Your task to perform on an android device: Show the shopping cart on costco. Search for alienware area 51 on costco, select the first entry, add it to the cart, then select checkout. Image 0: 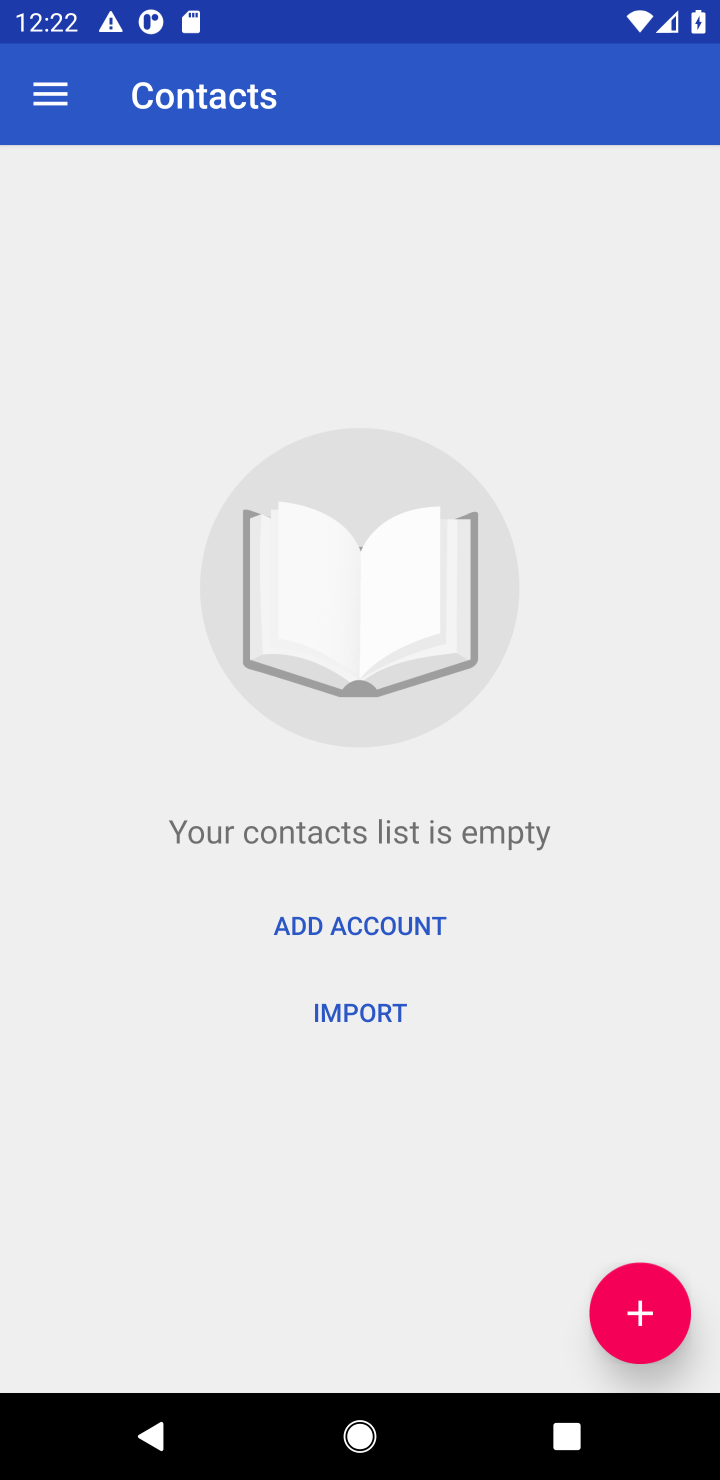
Step 0: press home button
Your task to perform on an android device: Show the shopping cart on costco. Search for alienware area 51 on costco, select the first entry, add it to the cart, then select checkout. Image 1: 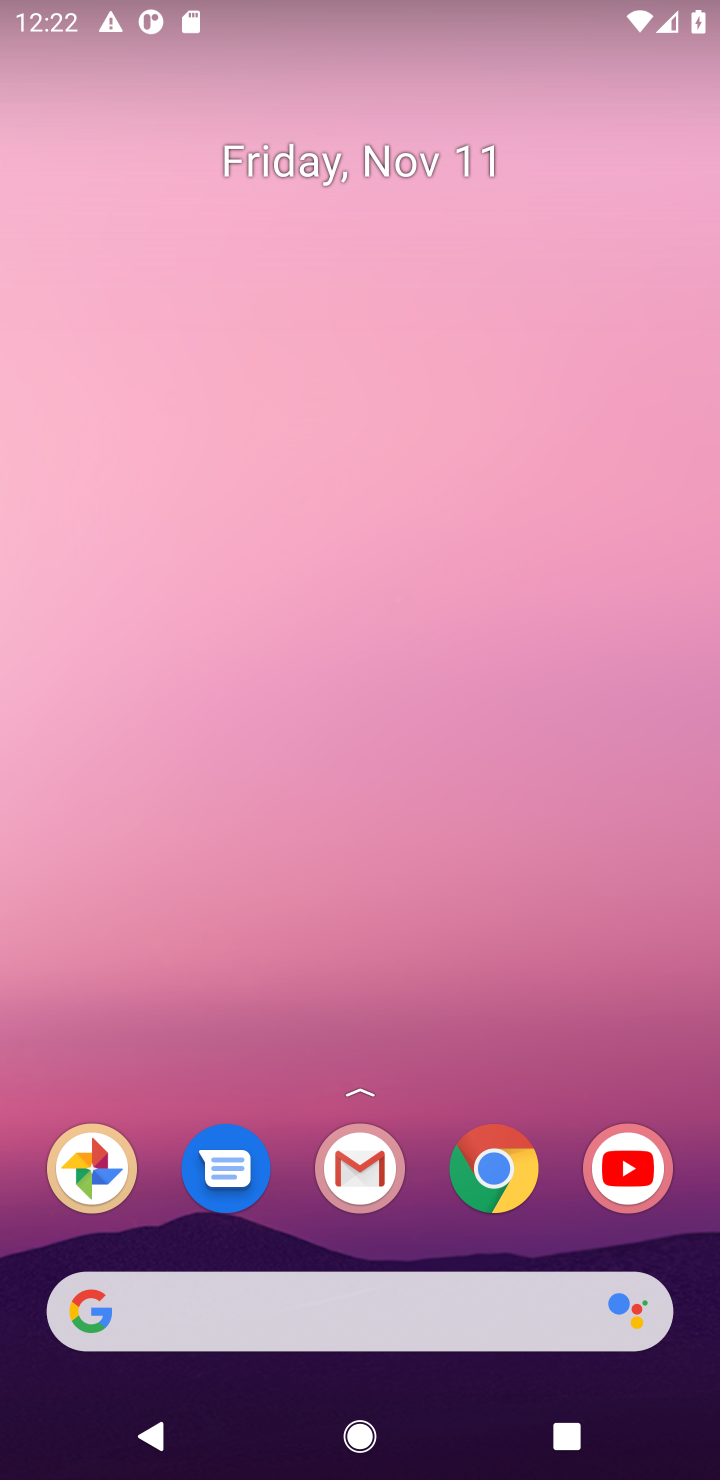
Step 1: click (510, 1158)
Your task to perform on an android device: Show the shopping cart on costco. Search for alienware area 51 on costco, select the first entry, add it to the cart, then select checkout. Image 2: 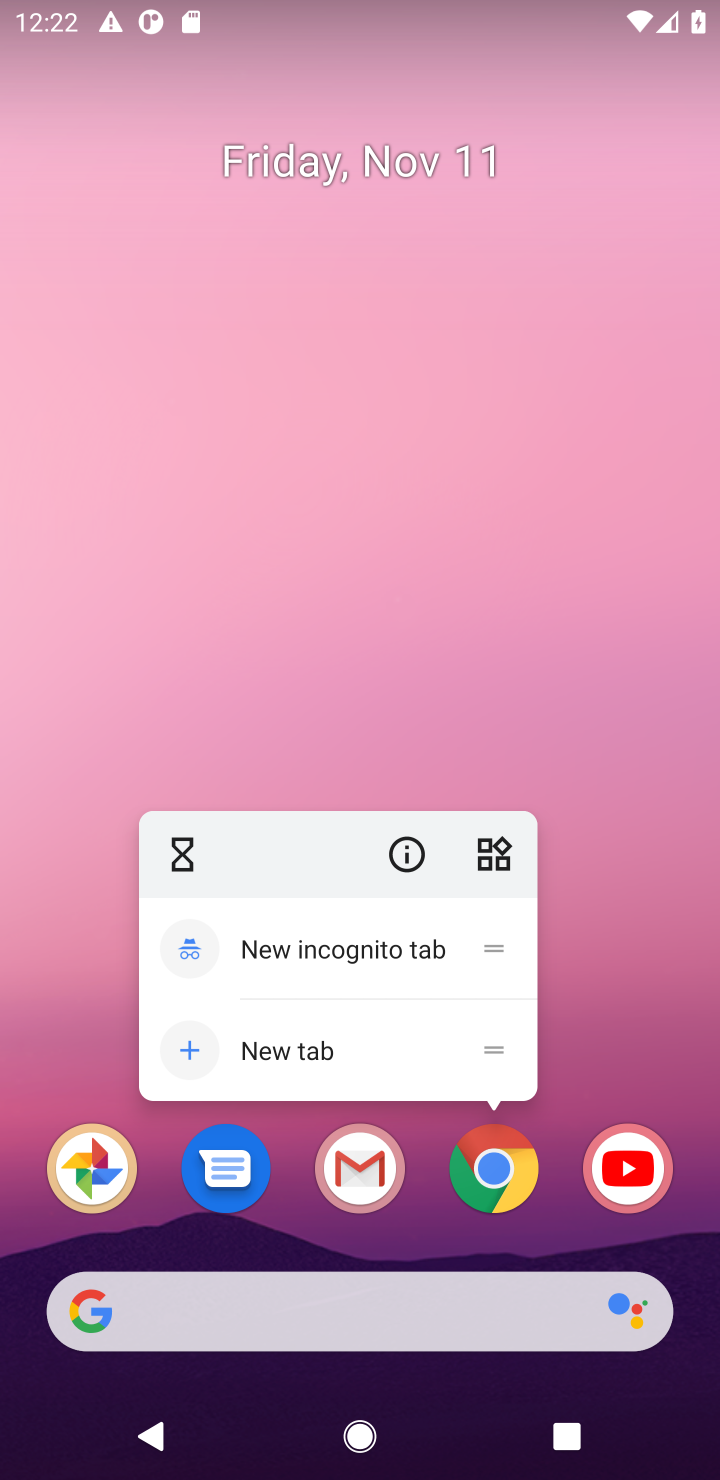
Step 2: click (493, 1183)
Your task to perform on an android device: Show the shopping cart on costco. Search for alienware area 51 on costco, select the first entry, add it to the cart, then select checkout. Image 3: 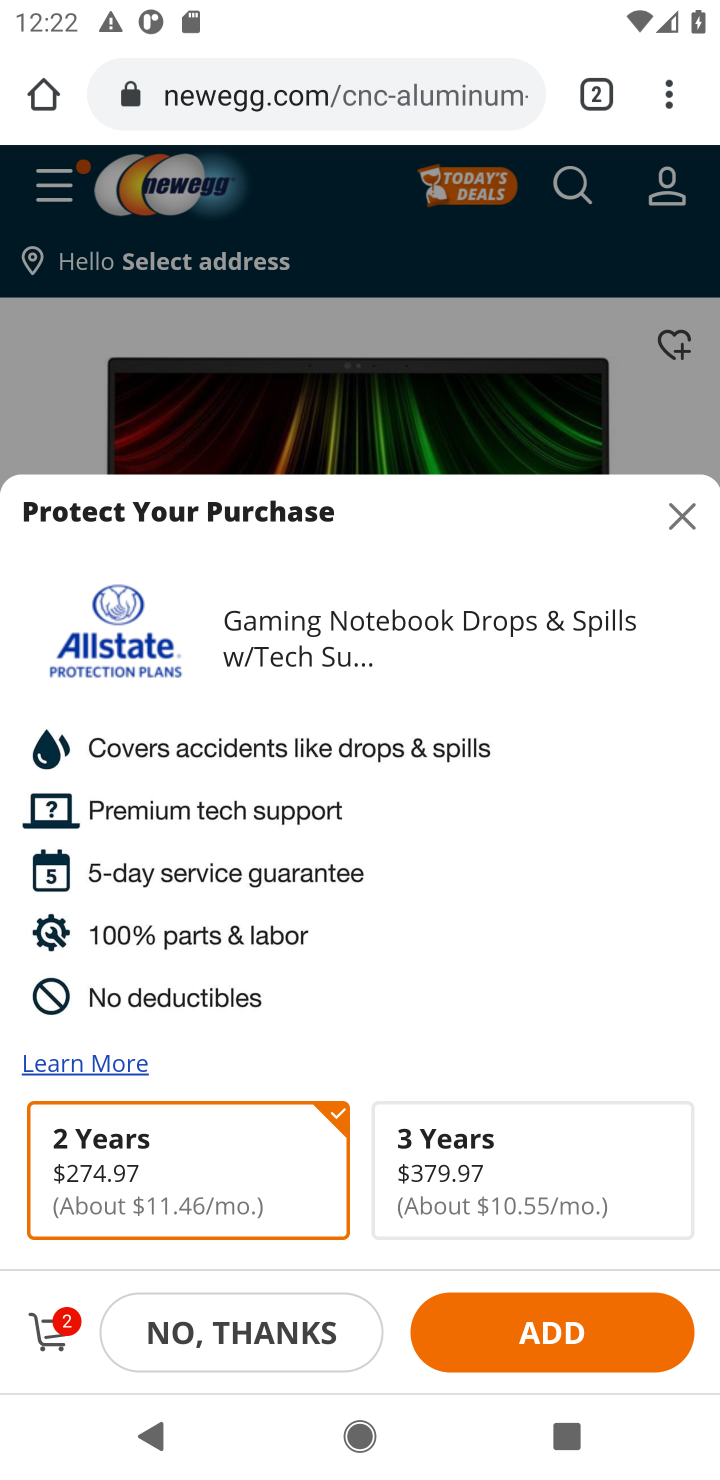
Step 3: click (301, 101)
Your task to perform on an android device: Show the shopping cart on costco. Search for alienware area 51 on costco, select the first entry, add it to the cart, then select checkout. Image 4: 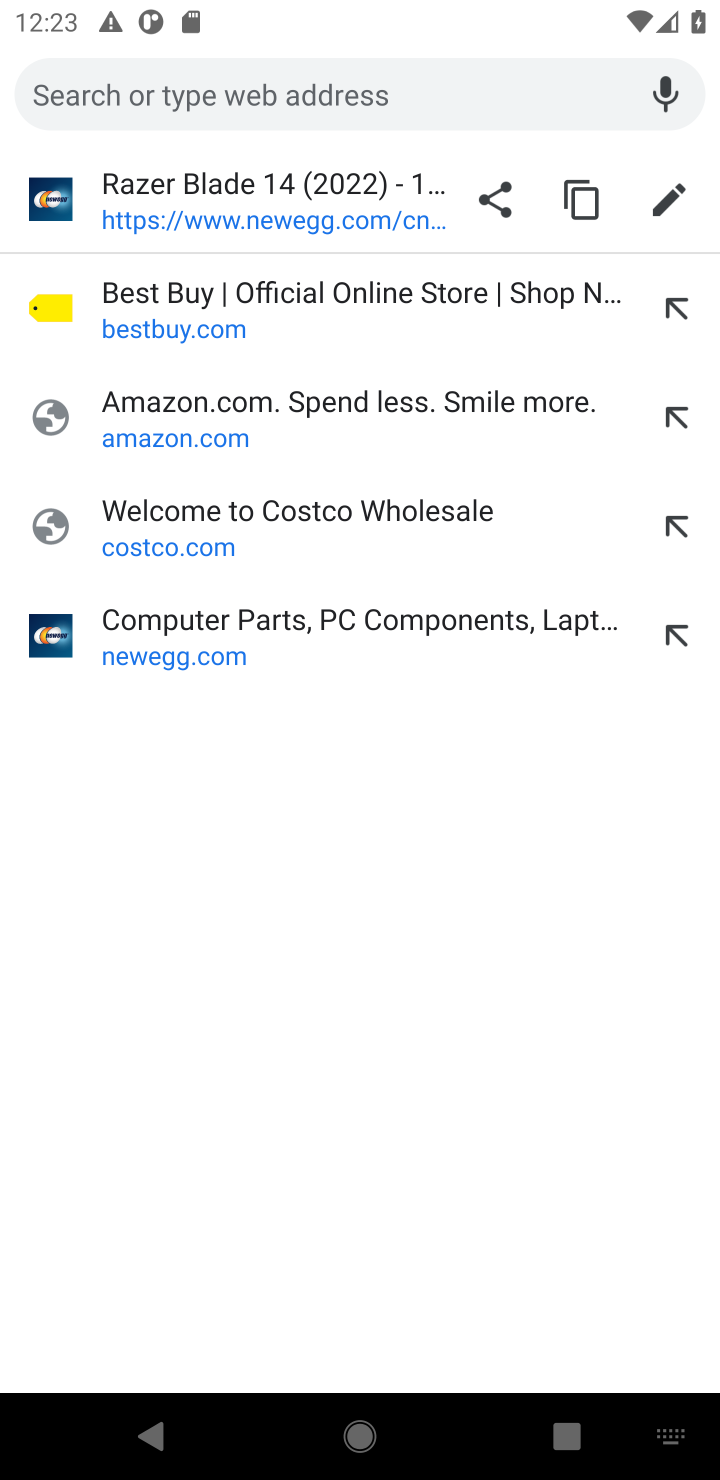
Step 4: click (187, 525)
Your task to perform on an android device: Show the shopping cart on costco. Search for alienware area 51 on costco, select the first entry, add it to the cart, then select checkout. Image 5: 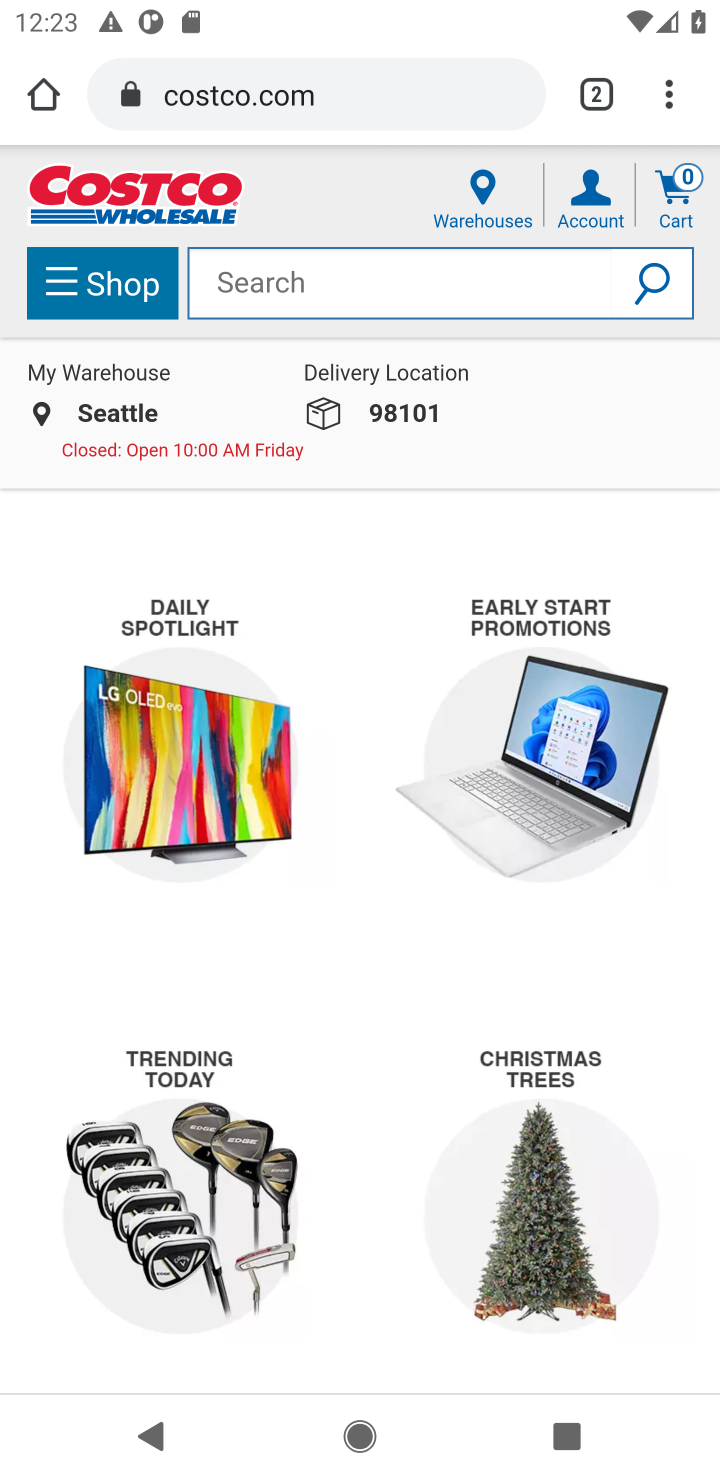
Step 5: click (683, 209)
Your task to perform on an android device: Show the shopping cart on costco. Search for alienware area 51 on costco, select the first entry, add it to the cart, then select checkout. Image 6: 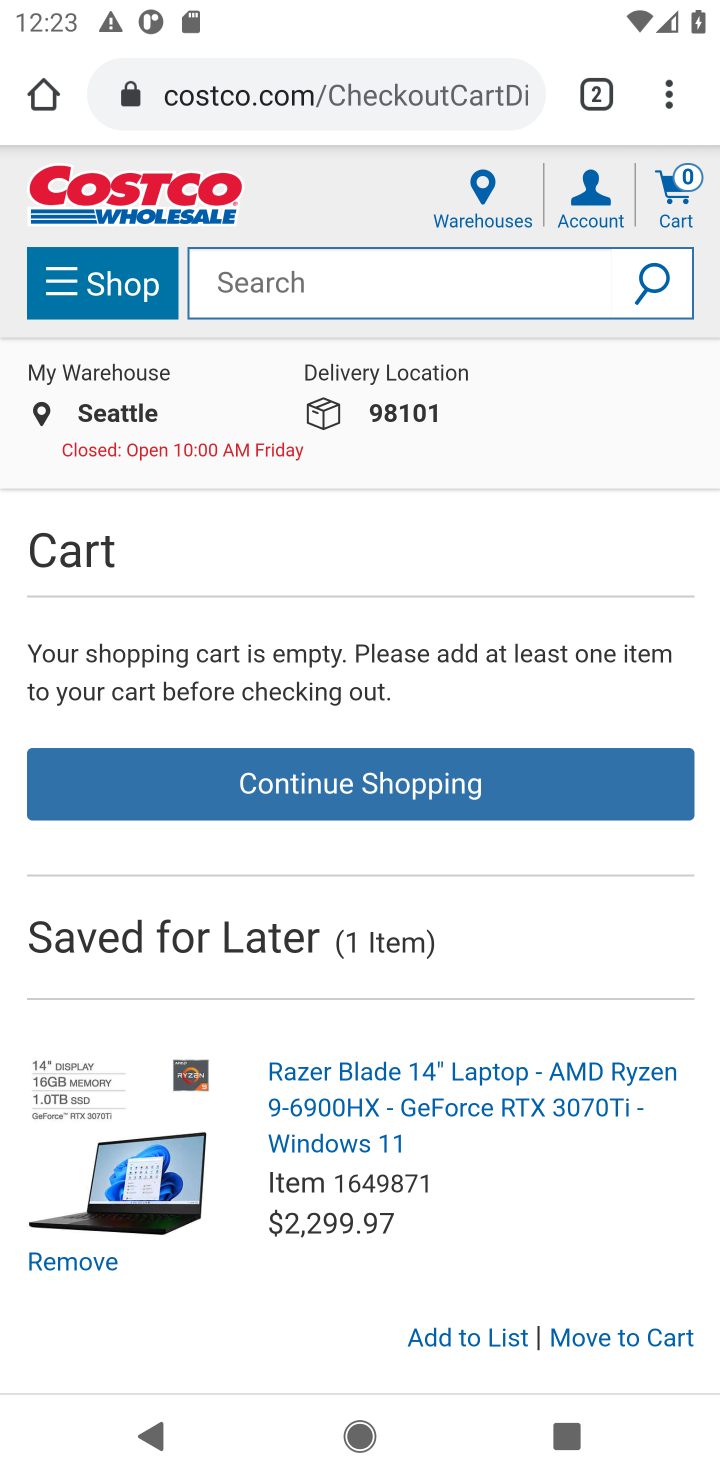
Step 6: click (348, 275)
Your task to perform on an android device: Show the shopping cart on costco. Search for alienware area 51 on costco, select the first entry, add it to the cart, then select checkout. Image 7: 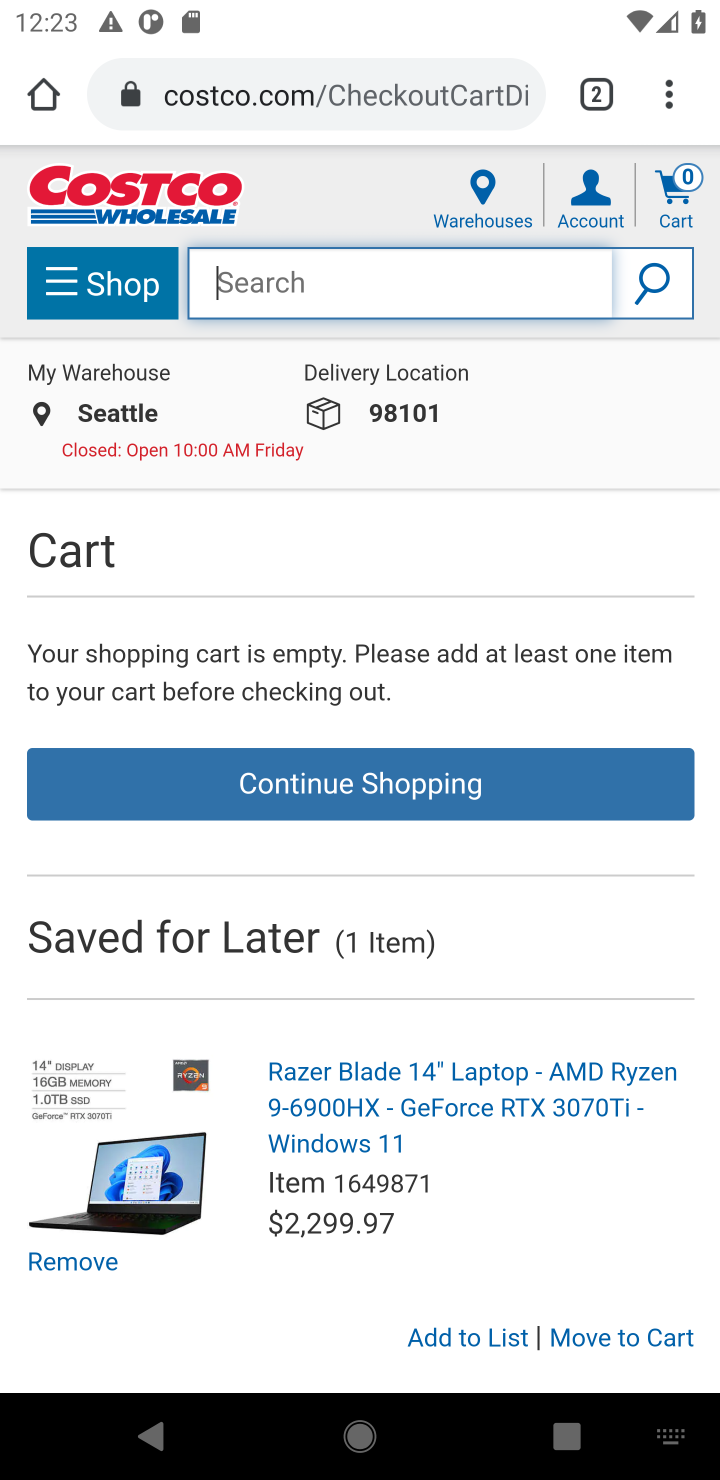
Step 7: type "alienware area 51"
Your task to perform on an android device: Show the shopping cart on costco. Search for alienware area 51 on costco, select the first entry, add it to the cart, then select checkout. Image 8: 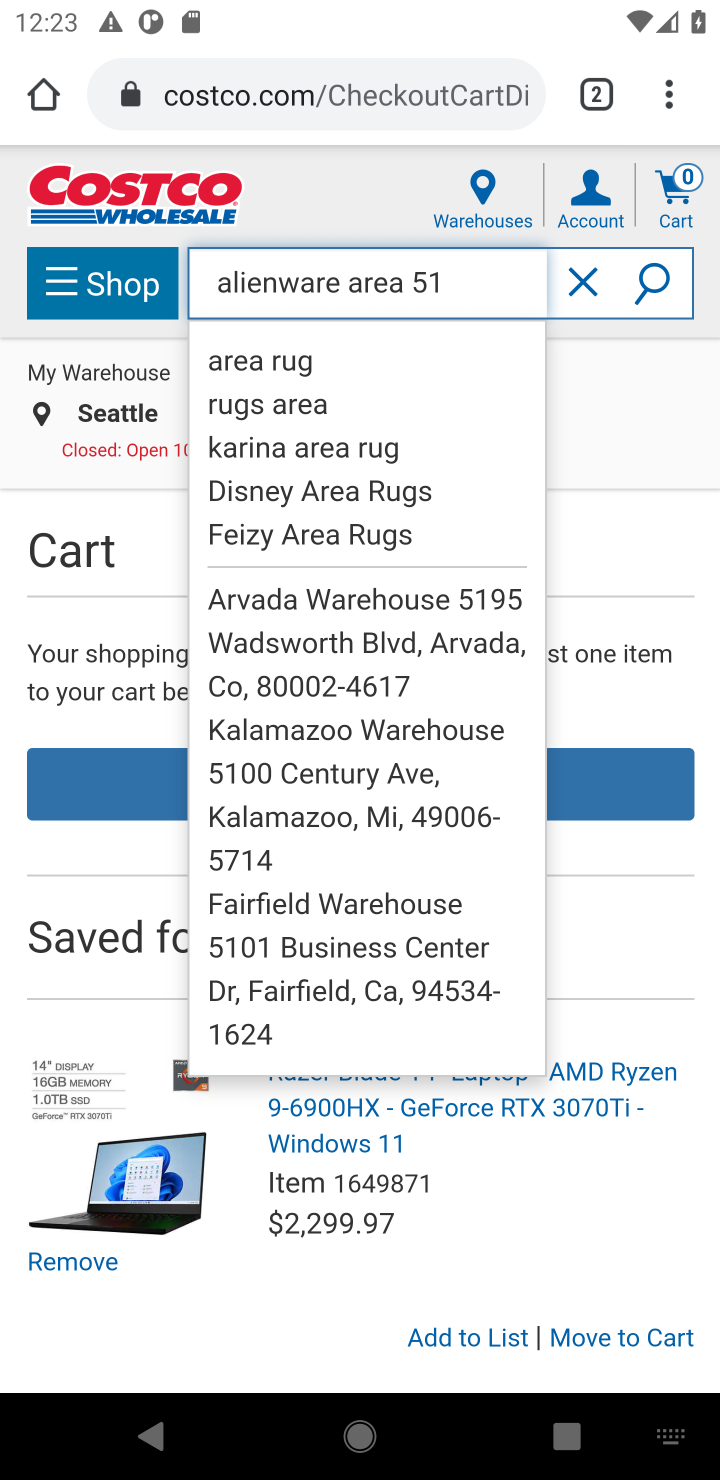
Step 8: click (640, 299)
Your task to perform on an android device: Show the shopping cart on costco. Search for alienware area 51 on costco, select the first entry, add it to the cart, then select checkout. Image 9: 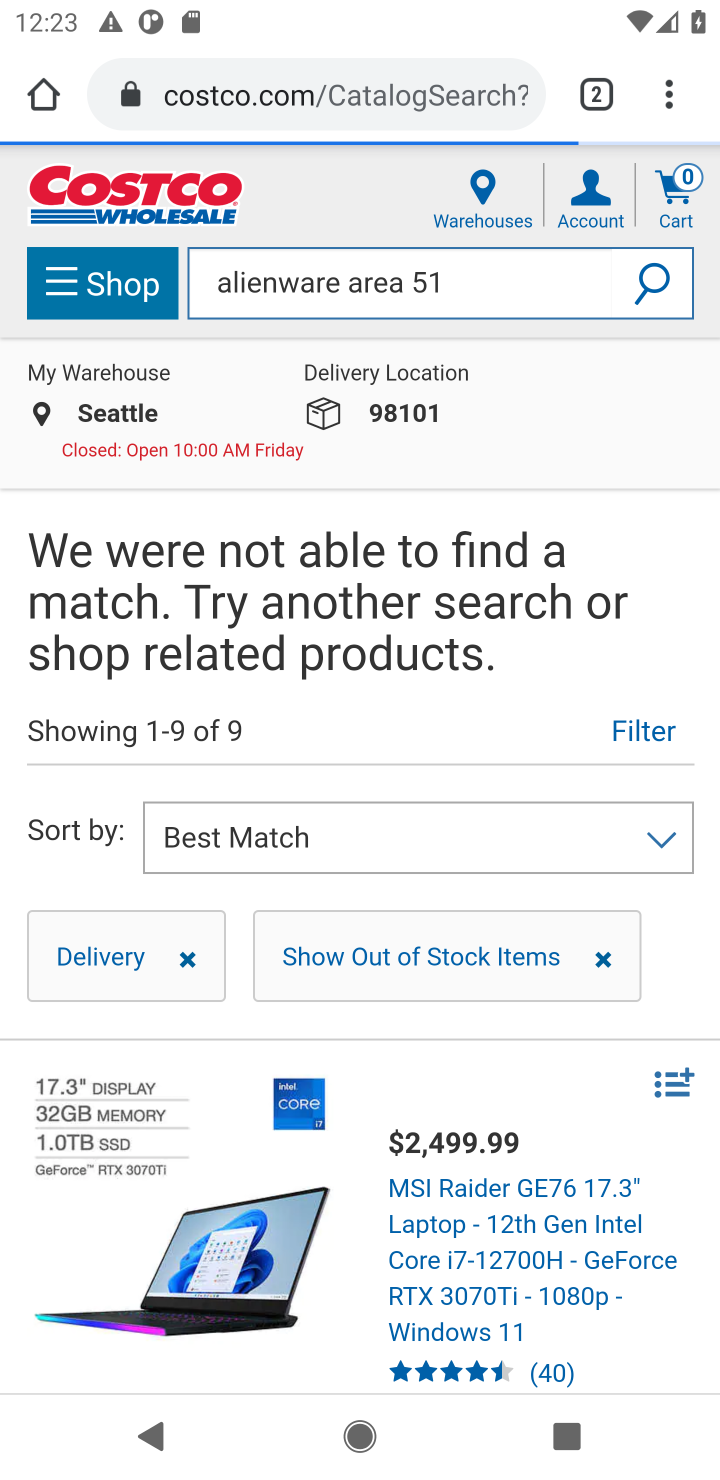
Step 9: task complete